Your task to perform on an android device: Go to network settings Image 0: 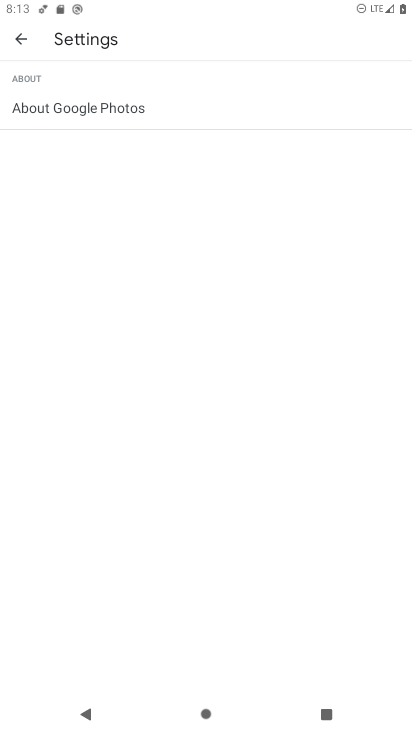
Step 0: press back button
Your task to perform on an android device: Go to network settings Image 1: 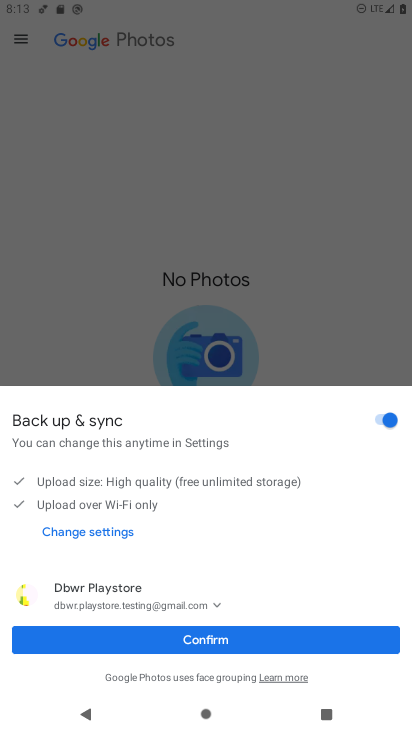
Step 1: press home button
Your task to perform on an android device: Go to network settings Image 2: 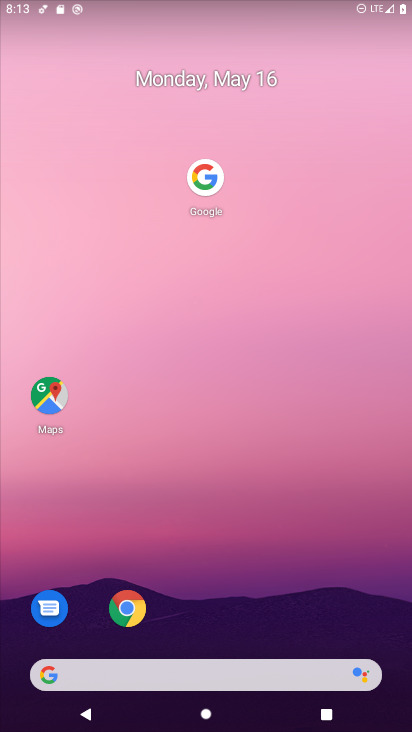
Step 2: drag from (250, 593) to (248, 112)
Your task to perform on an android device: Go to network settings Image 3: 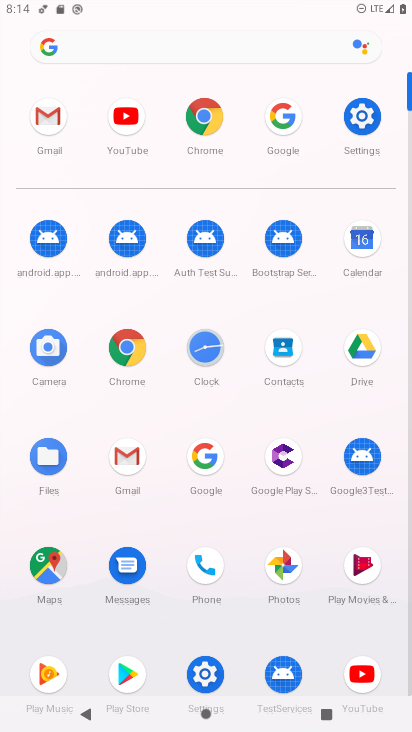
Step 3: drag from (308, 293) to (324, 120)
Your task to perform on an android device: Go to network settings Image 4: 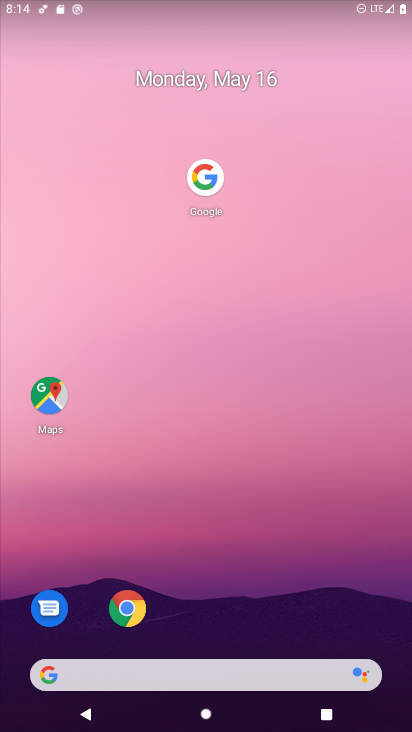
Step 4: drag from (254, 597) to (274, 44)
Your task to perform on an android device: Go to network settings Image 5: 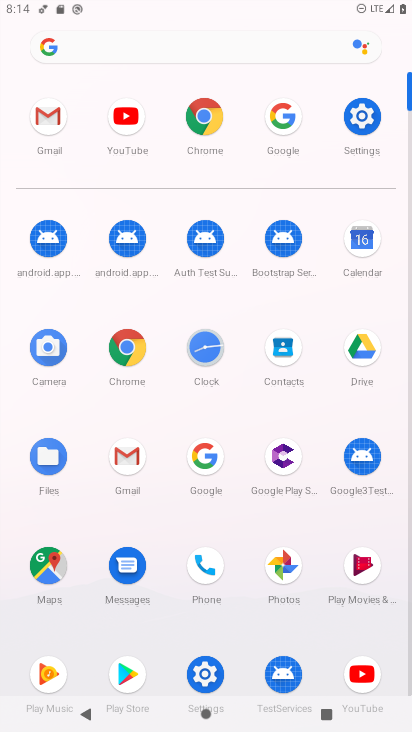
Step 5: click (362, 117)
Your task to perform on an android device: Go to network settings Image 6: 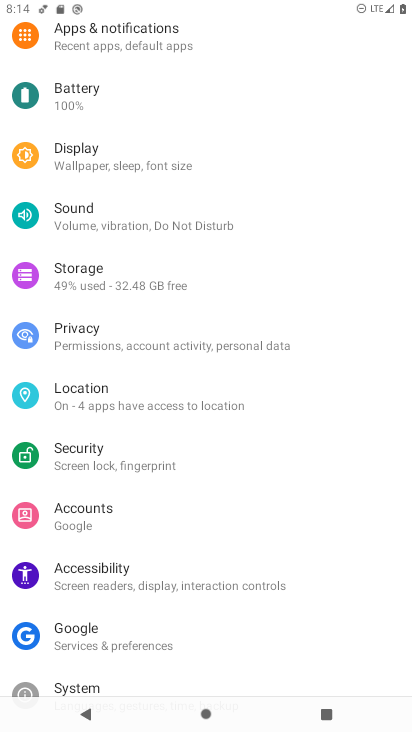
Step 6: drag from (152, 187) to (156, 228)
Your task to perform on an android device: Go to network settings Image 7: 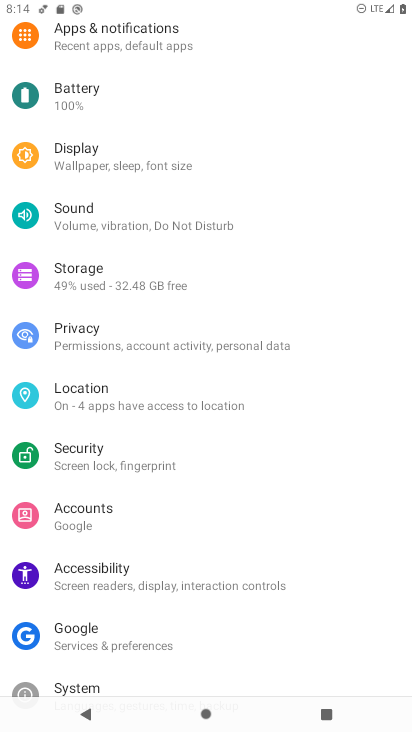
Step 7: drag from (282, 130) to (286, 377)
Your task to perform on an android device: Go to network settings Image 8: 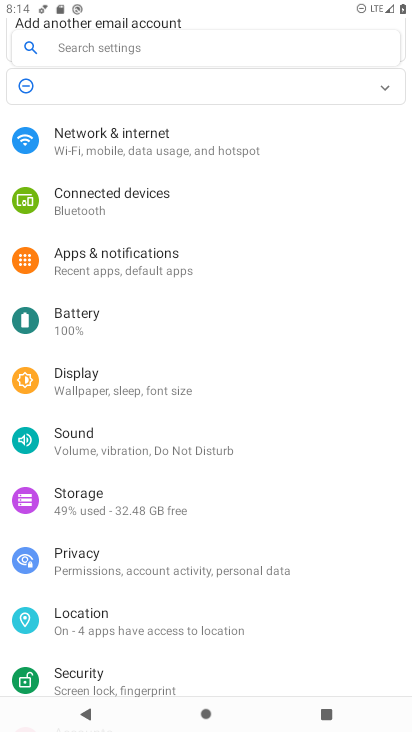
Step 8: click (95, 126)
Your task to perform on an android device: Go to network settings Image 9: 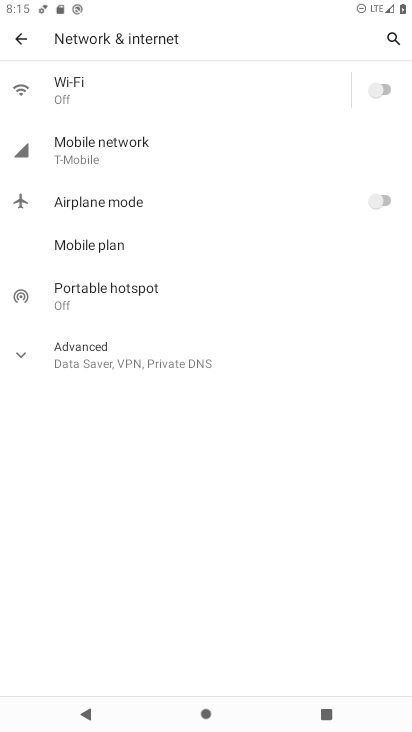
Step 9: click (142, 143)
Your task to perform on an android device: Go to network settings Image 10: 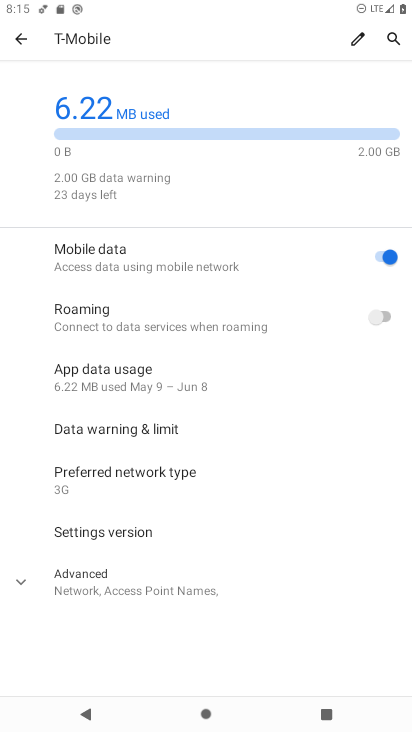
Step 10: task complete